Your task to perform on an android device: Open accessibility settings Image 0: 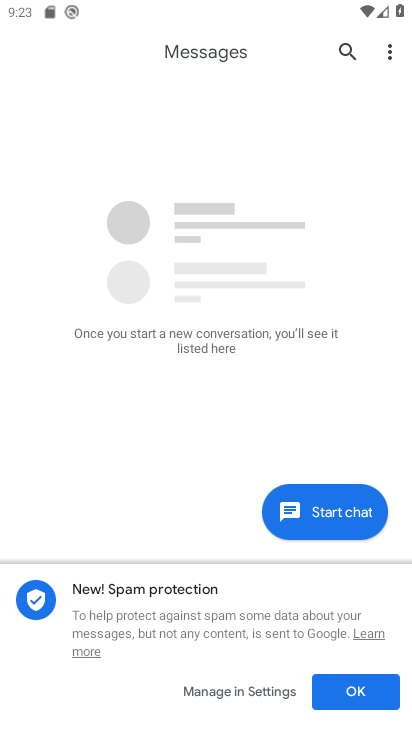
Step 0: press home button
Your task to perform on an android device: Open accessibility settings Image 1: 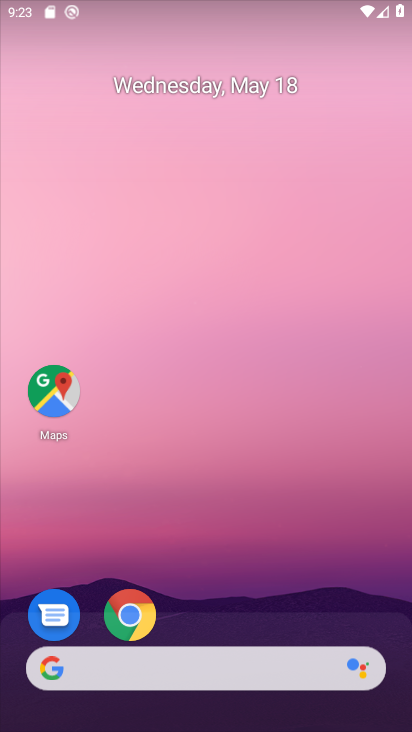
Step 1: drag from (384, 533) to (334, 0)
Your task to perform on an android device: Open accessibility settings Image 2: 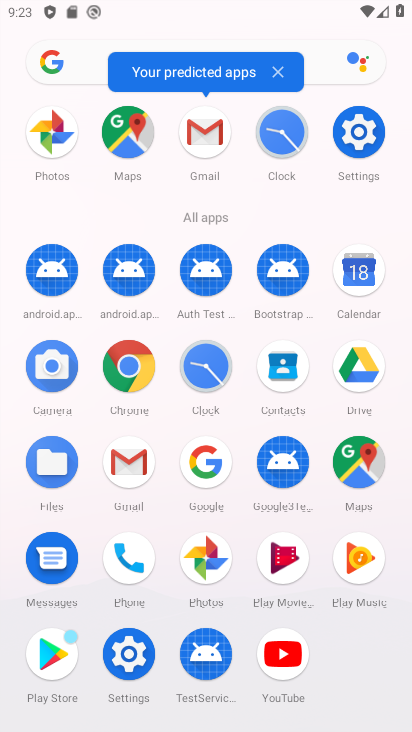
Step 2: click (366, 136)
Your task to perform on an android device: Open accessibility settings Image 3: 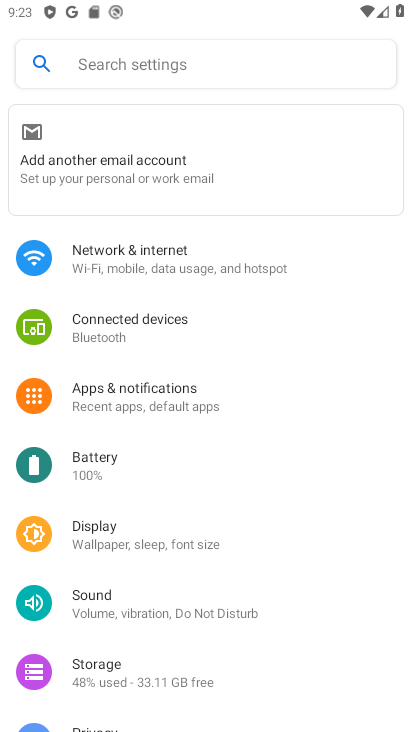
Step 3: drag from (270, 568) to (225, 289)
Your task to perform on an android device: Open accessibility settings Image 4: 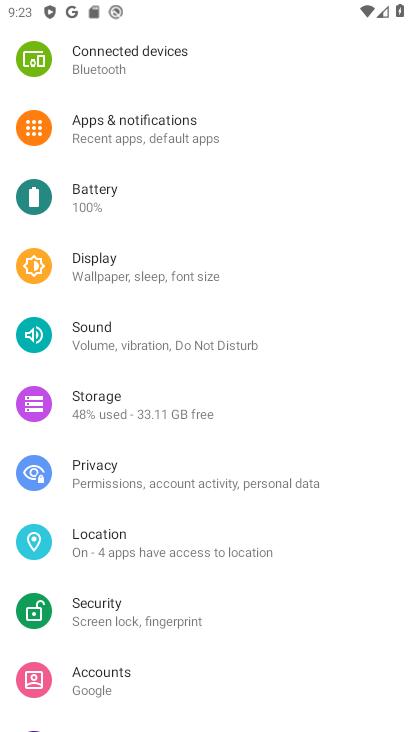
Step 4: drag from (190, 596) to (191, 311)
Your task to perform on an android device: Open accessibility settings Image 5: 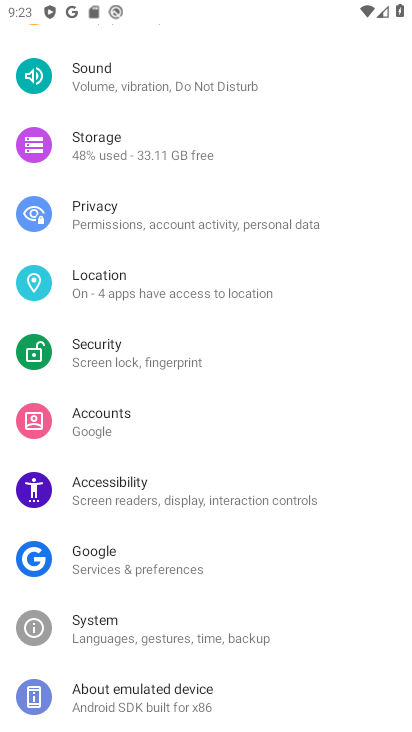
Step 5: click (172, 503)
Your task to perform on an android device: Open accessibility settings Image 6: 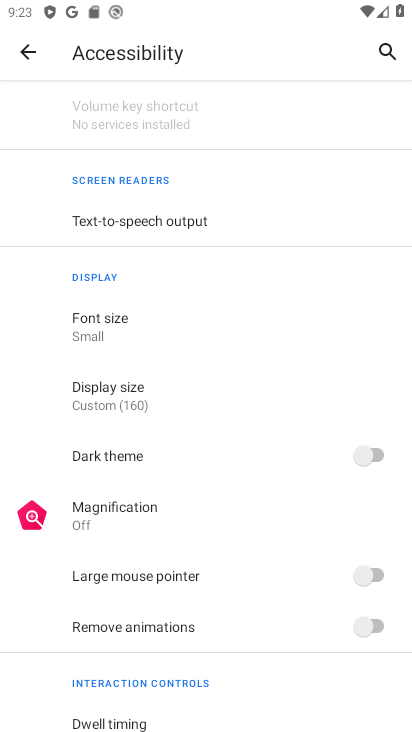
Step 6: task complete